Your task to perform on an android device: Search for sushi restaurants on Maps Image 0: 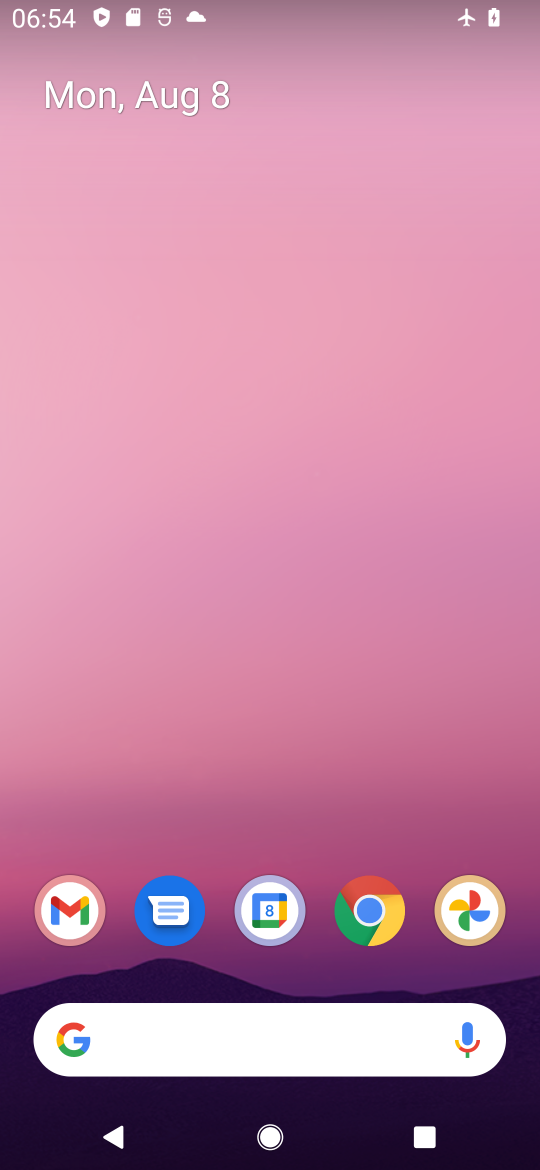
Step 0: drag from (307, 1038) to (306, 395)
Your task to perform on an android device: Search for sushi restaurants on Maps Image 1: 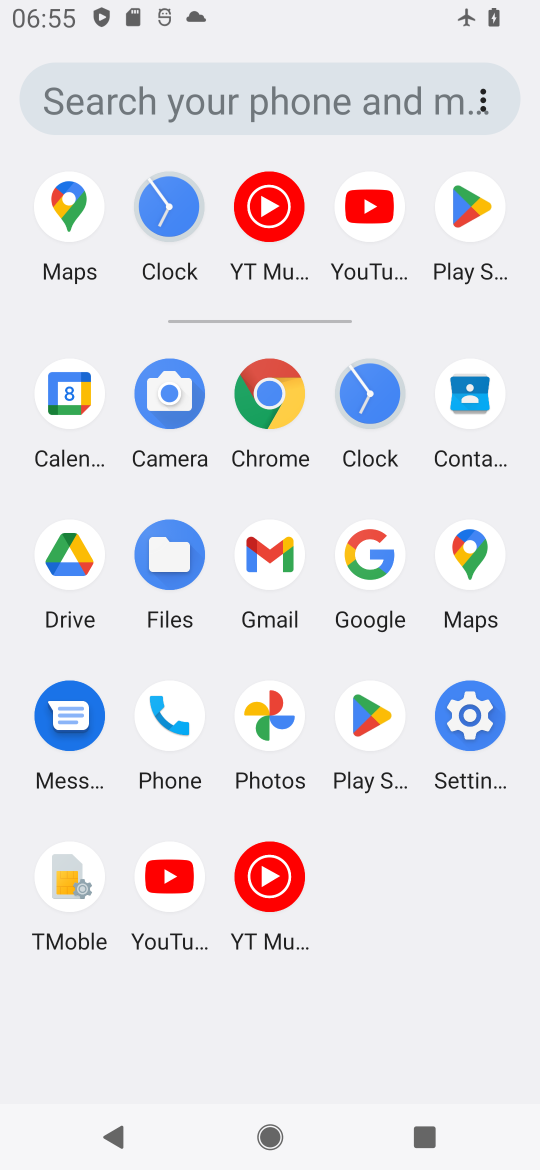
Step 1: click (69, 199)
Your task to perform on an android device: Search for sushi restaurants on Maps Image 2: 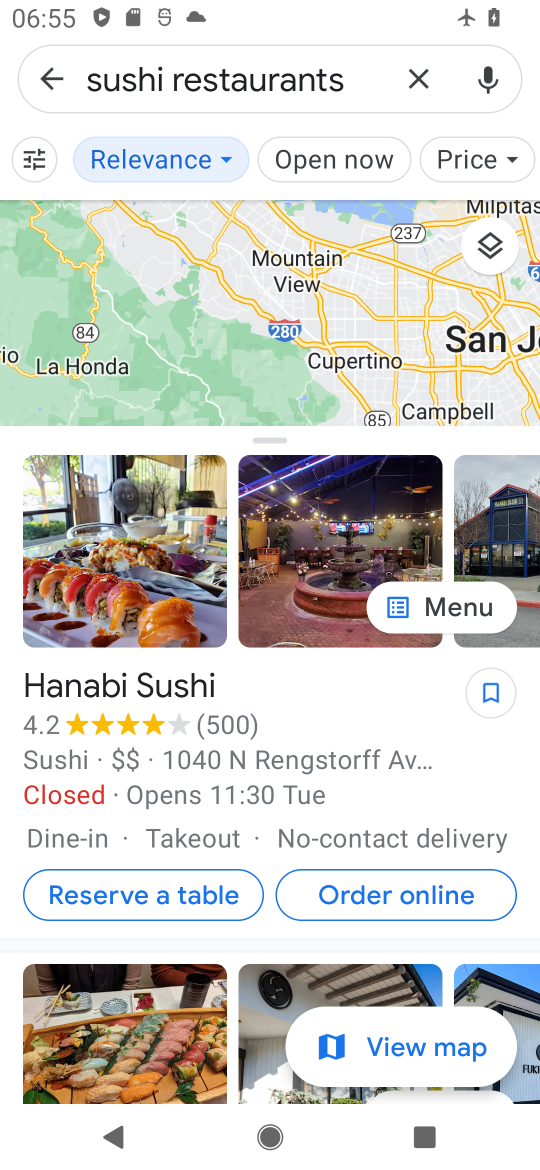
Step 2: click (415, 89)
Your task to perform on an android device: Search for sushi restaurants on Maps Image 3: 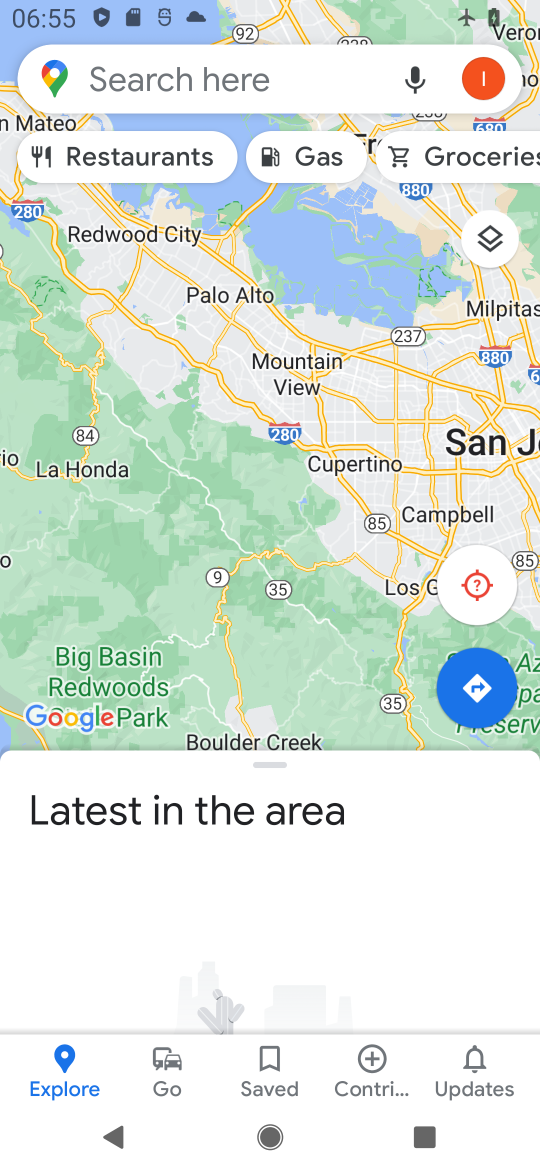
Step 3: click (341, 89)
Your task to perform on an android device: Search for sushi restaurants on Maps Image 4: 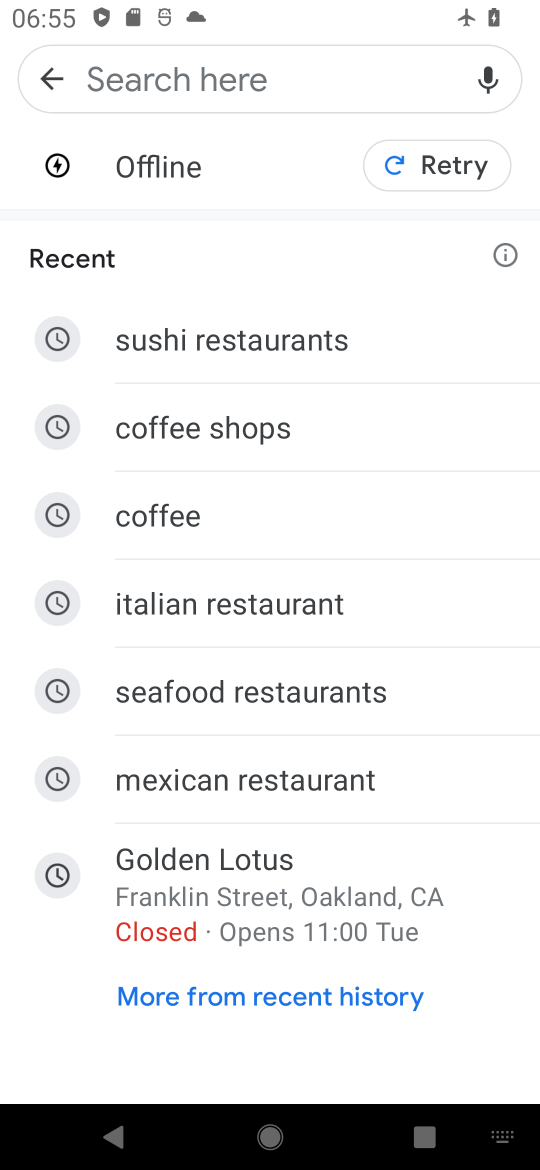
Step 4: type "sushi restaurants"
Your task to perform on an android device: Search for sushi restaurants on Maps Image 5: 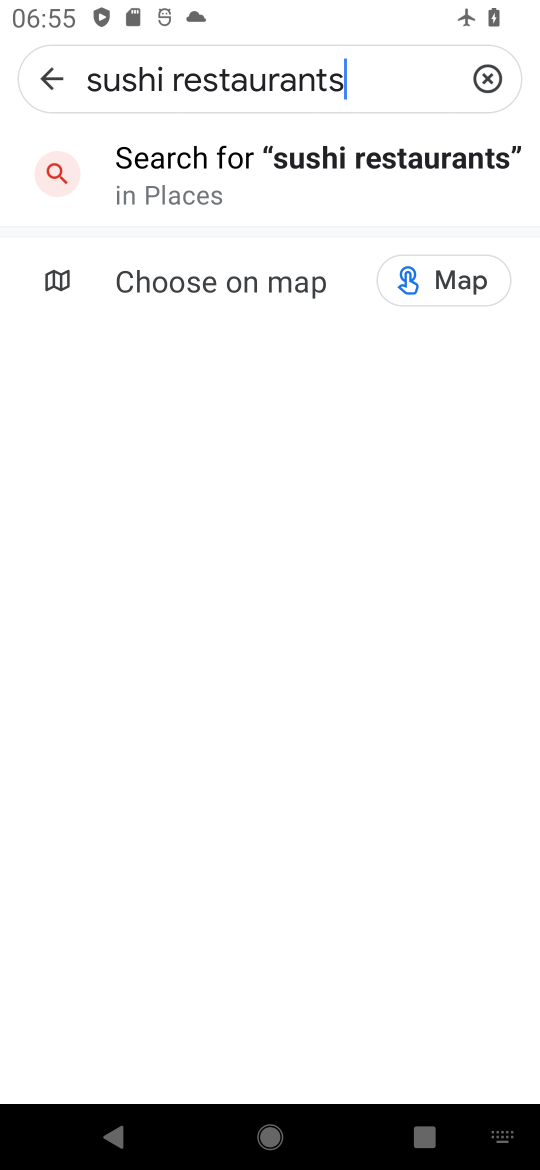
Step 5: task complete